Your task to perform on an android device: change text size in settings app Image 0: 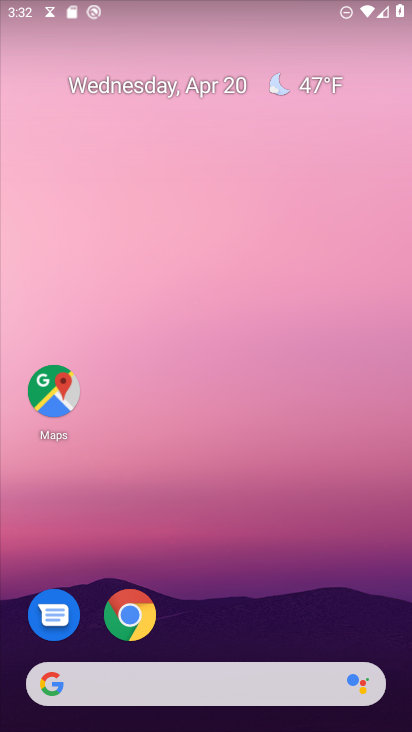
Step 0: drag from (216, 608) to (208, 153)
Your task to perform on an android device: change text size in settings app Image 1: 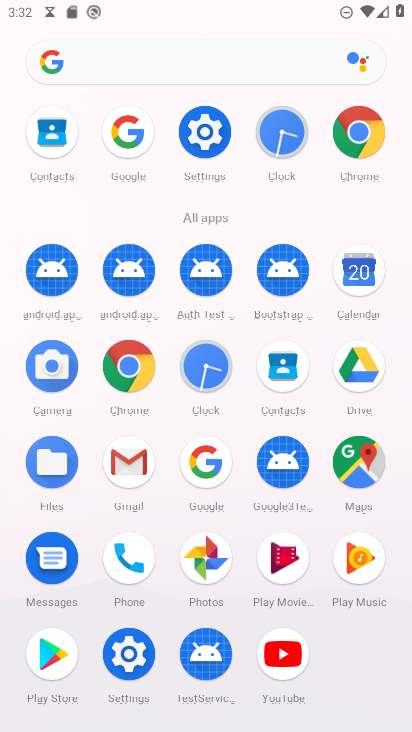
Step 1: click (206, 124)
Your task to perform on an android device: change text size in settings app Image 2: 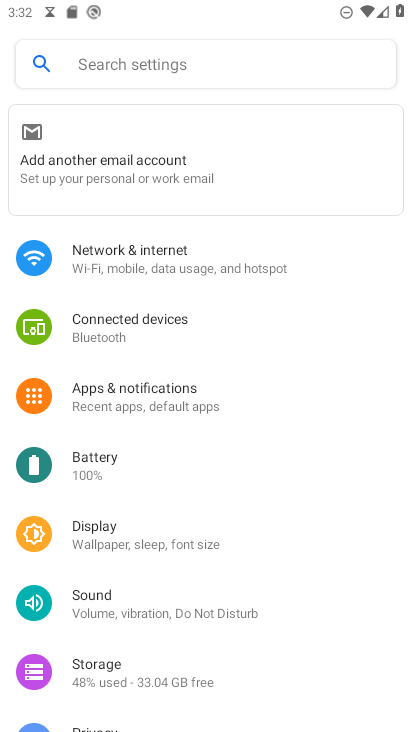
Step 2: click (92, 538)
Your task to perform on an android device: change text size in settings app Image 3: 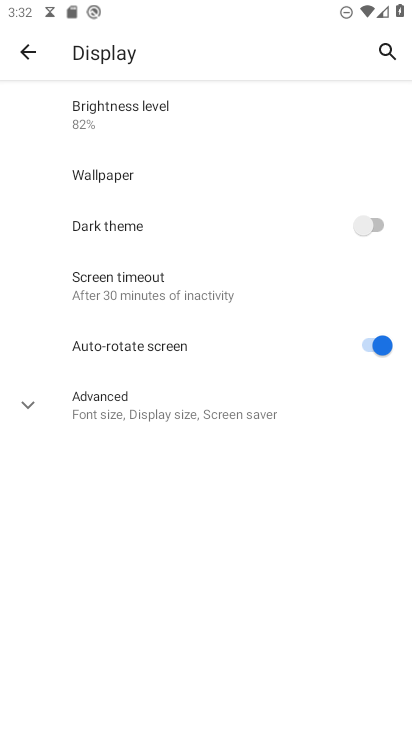
Step 3: click (179, 404)
Your task to perform on an android device: change text size in settings app Image 4: 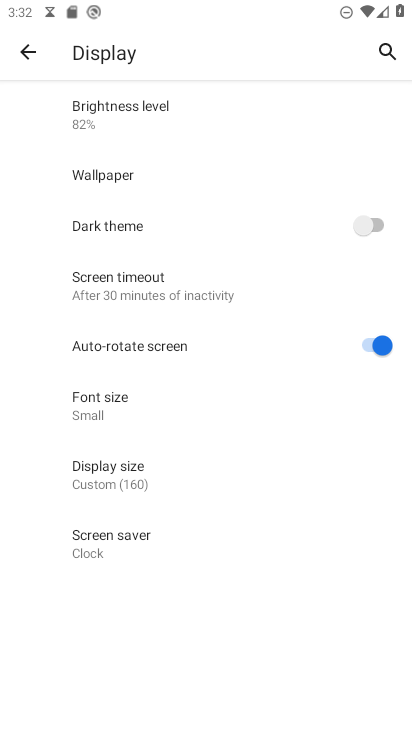
Step 4: click (108, 398)
Your task to perform on an android device: change text size in settings app Image 5: 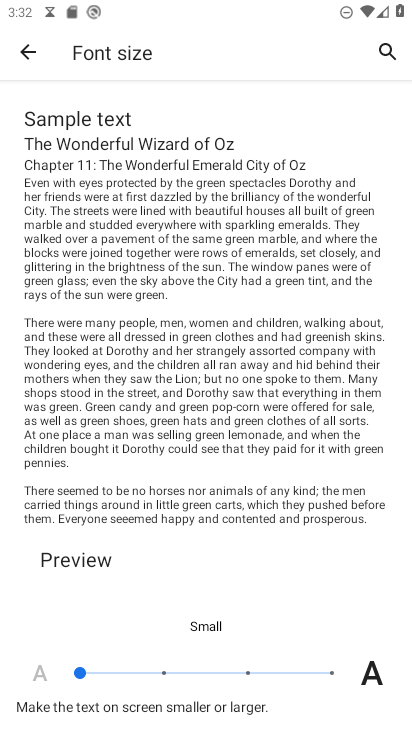
Step 5: click (163, 666)
Your task to perform on an android device: change text size in settings app Image 6: 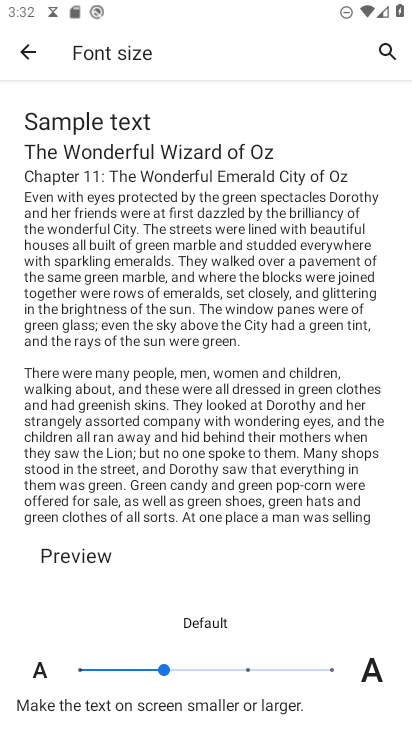
Step 6: task complete